Your task to perform on an android device: toggle sleep mode Image 0: 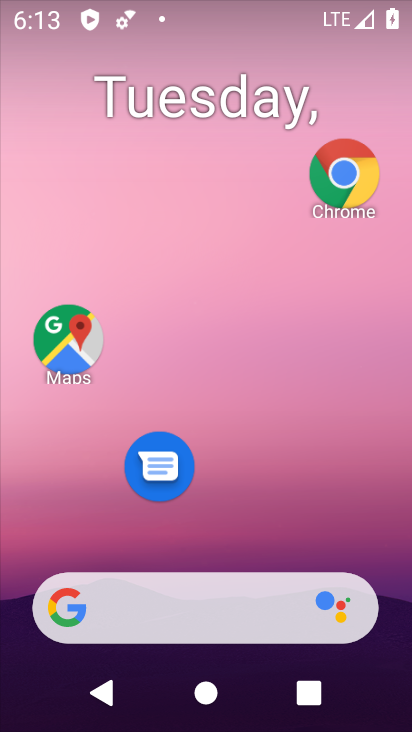
Step 0: drag from (314, 534) to (228, 116)
Your task to perform on an android device: toggle sleep mode Image 1: 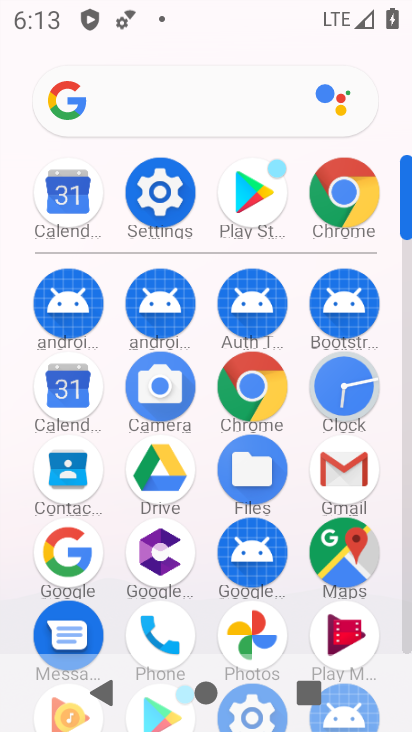
Step 1: click (145, 213)
Your task to perform on an android device: toggle sleep mode Image 2: 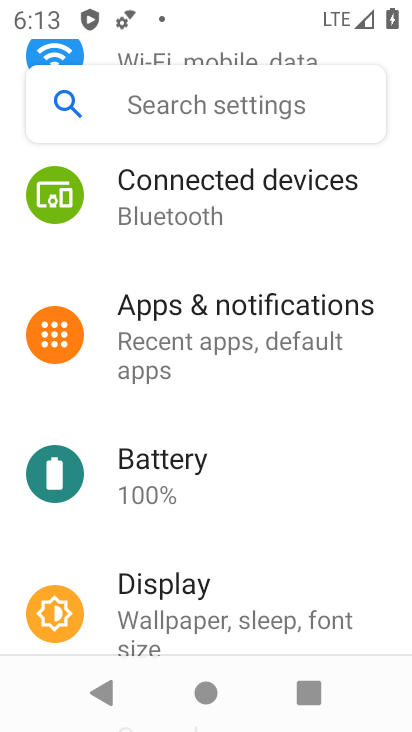
Step 2: click (174, 470)
Your task to perform on an android device: toggle sleep mode Image 3: 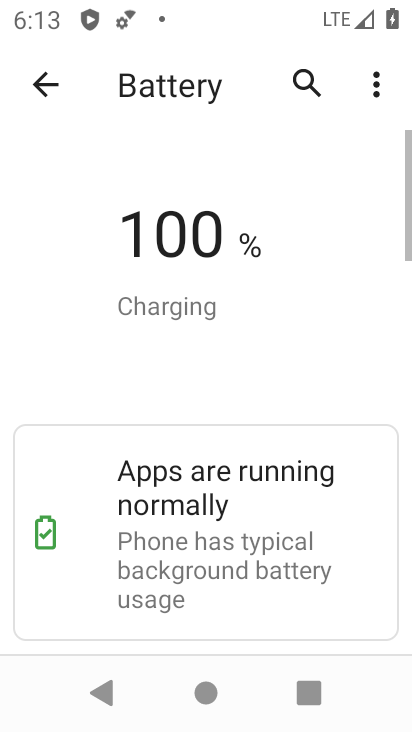
Step 3: click (52, 109)
Your task to perform on an android device: toggle sleep mode Image 4: 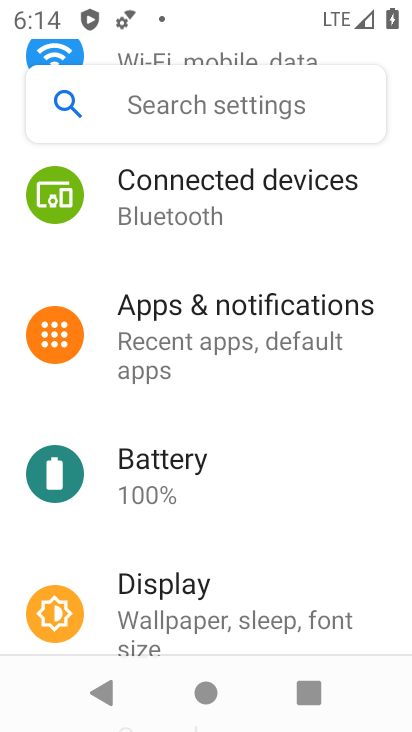
Step 4: click (214, 579)
Your task to perform on an android device: toggle sleep mode Image 5: 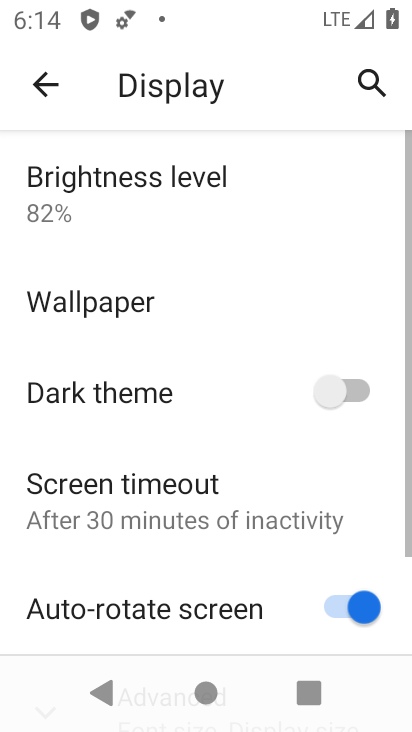
Step 5: task complete